Your task to perform on an android device: see tabs open on other devices in the chrome app Image 0: 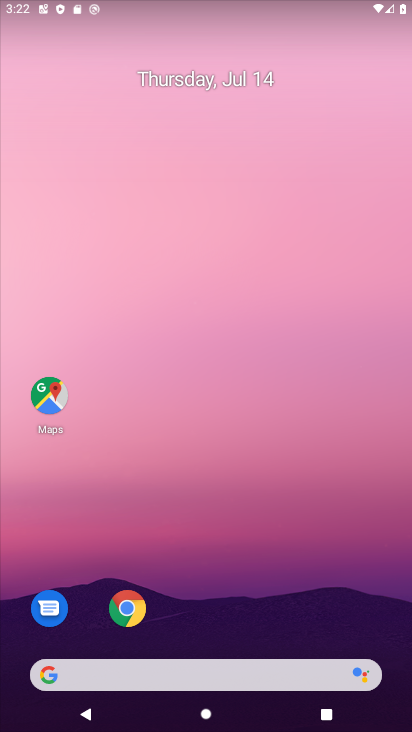
Step 0: press home button
Your task to perform on an android device: see tabs open on other devices in the chrome app Image 1: 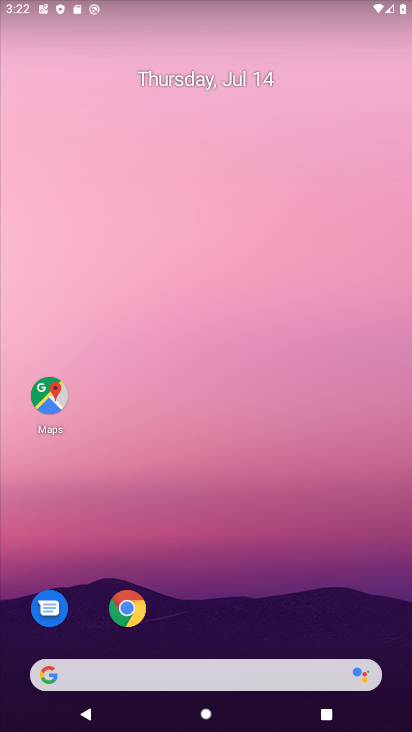
Step 1: click (131, 607)
Your task to perform on an android device: see tabs open on other devices in the chrome app Image 2: 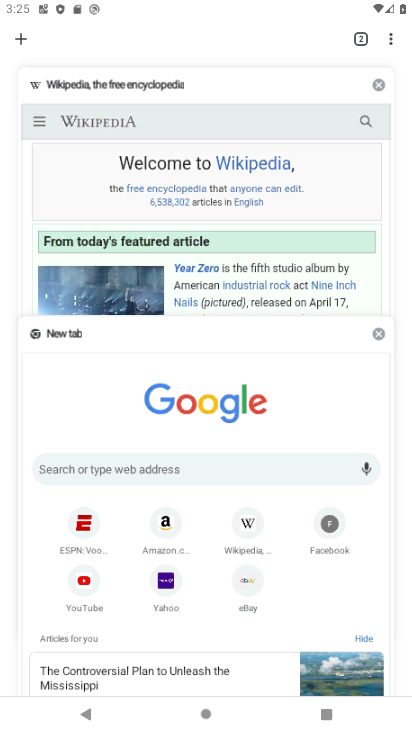
Step 2: task complete